Your task to perform on an android device: Open Android settings Image 0: 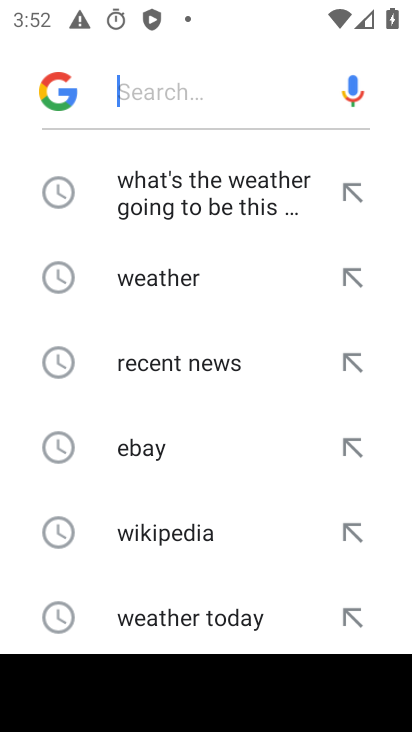
Step 0: press home button
Your task to perform on an android device: Open Android settings Image 1: 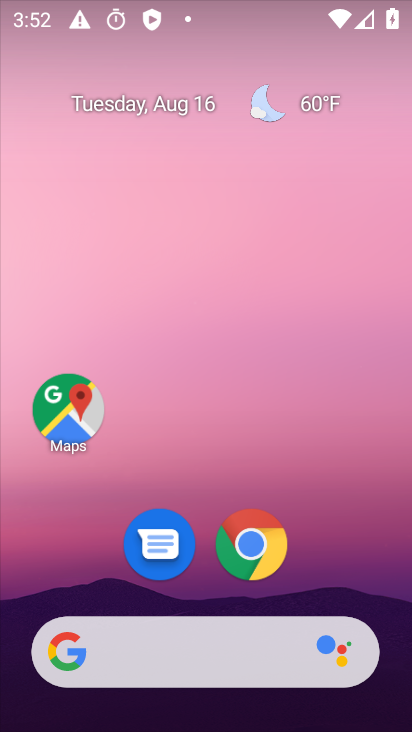
Step 1: drag from (386, 649) to (219, 15)
Your task to perform on an android device: Open Android settings Image 2: 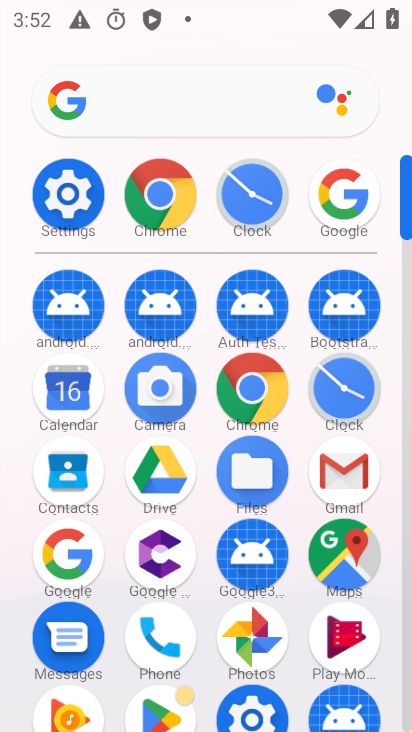
Step 2: drag from (206, 637) to (188, 133)
Your task to perform on an android device: Open Android settings Image 3: 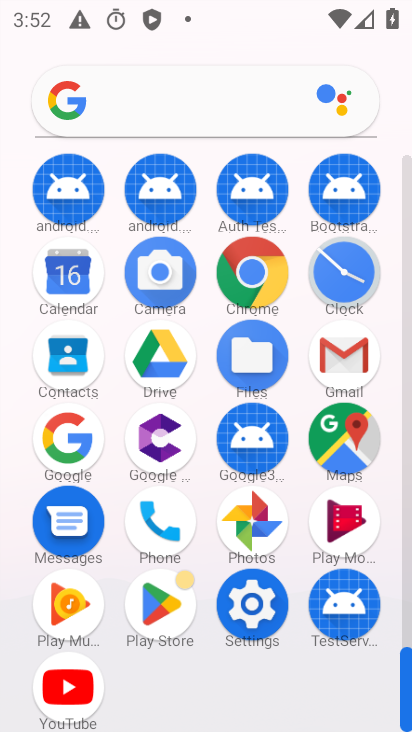
Step 3: click (250, 609)
Your task to perform on an android device: Open Android settings Image 4: 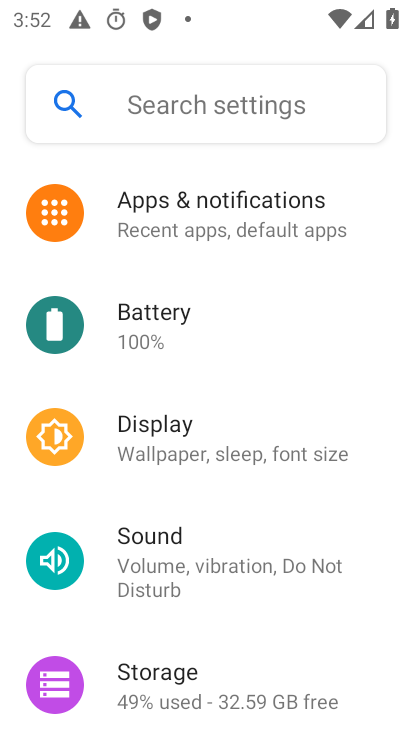
Step 4: task complete